Your task to perform on an android device: Open the calendar app, open the side menu, and click the "Day" option Image 0: 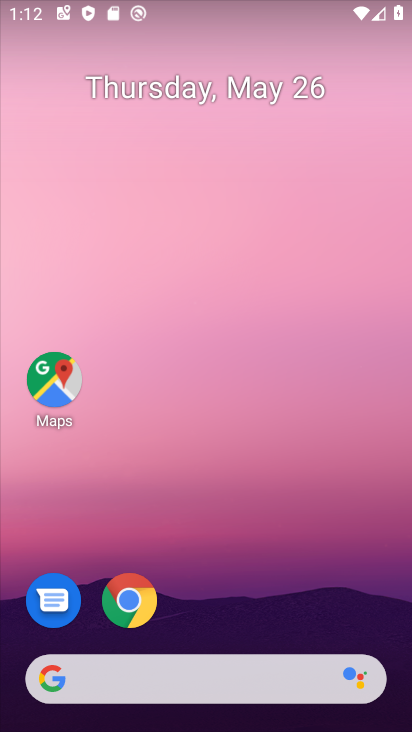
Step 0: drag from (313, 525) to (334, 69)
Your task to perform on an android device: Open the calendar app, open the side menu, and click the "Day" option Image 1: 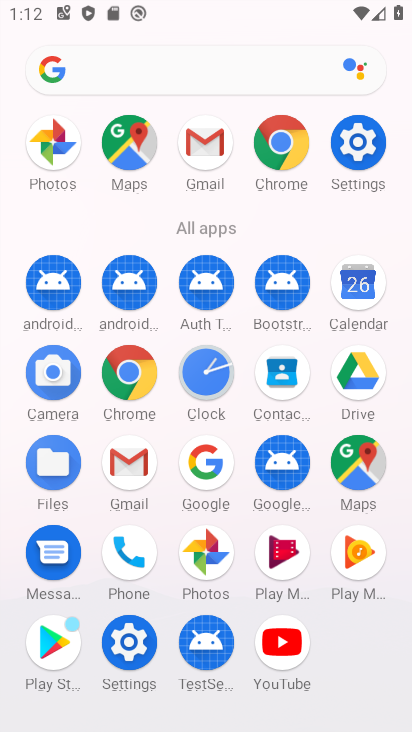
Step 1: click (375, 271)
Your task to perform on an android device: Open the calendar app, open the side menu, and click the "Day" option Image 2: 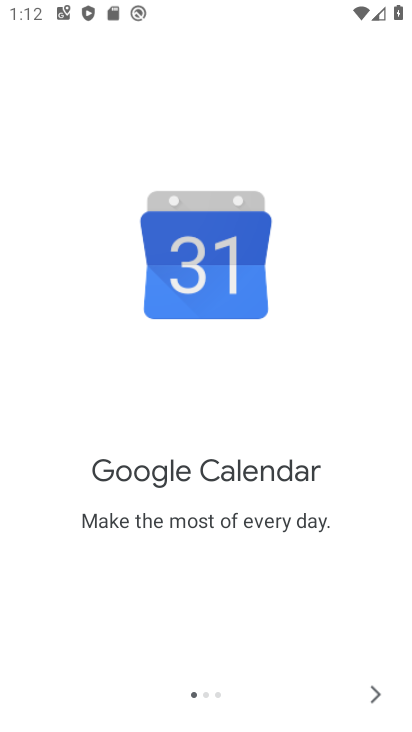
Step 2: click (380, 698)
Your task to perform on an android device: Open the calendar app, open the side menu, and click the "Day" option Image 3: 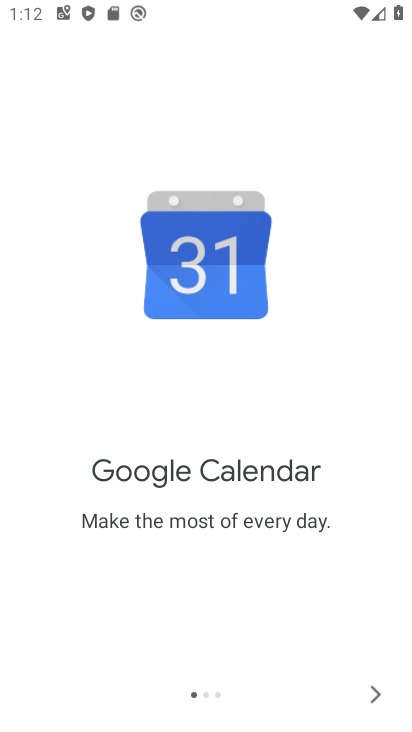
Step 3: click (380, 698)
Your task to perform on an android device: Open the calendar app, open the side menu, and click the "Day" option Image 4: 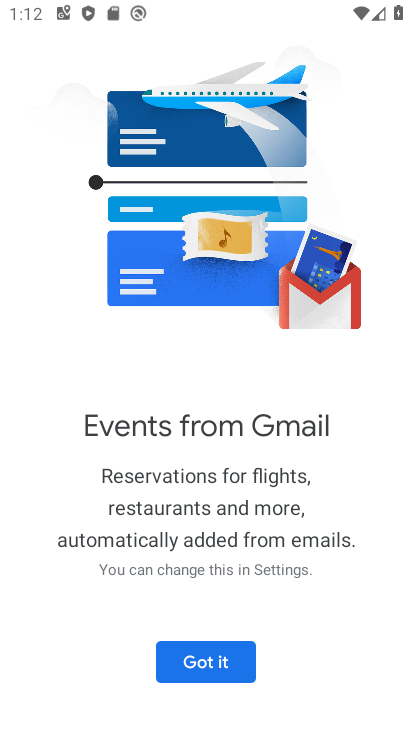
Step 4: click (233, 675)
Your task to perform on an android device: Open the calendar app, open the side menu, and click the "Day" option Image 5: 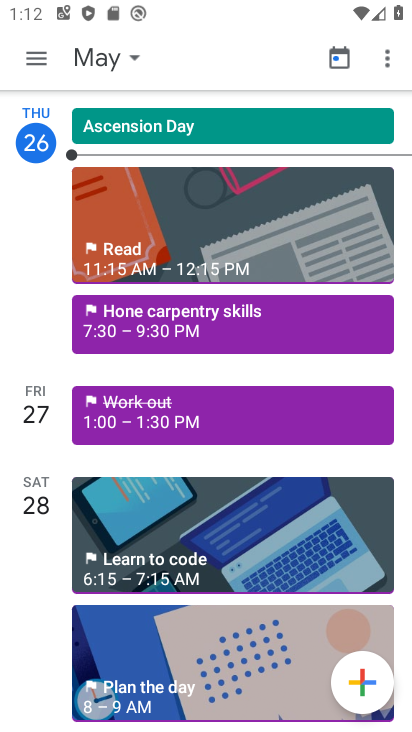
Step 5: click (22, 61)
Your task to perform on an android device: Open the calendar app, open the side menu, and click the "Day" option Image 6: 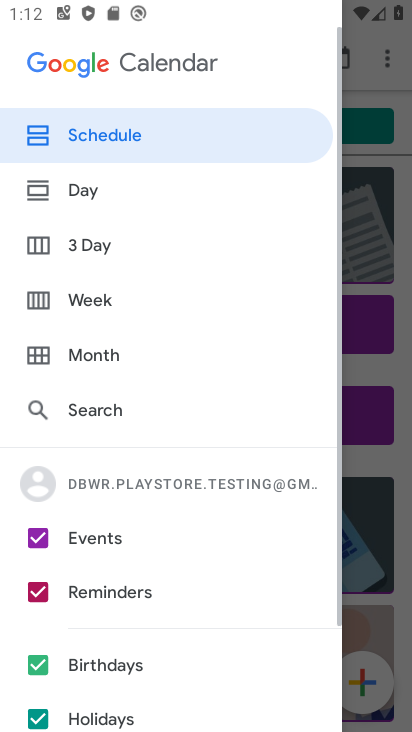
Step 6: click (70, 177)
Your task to perform on an android device: Open the calendar app, open the side menu, and click the "Day" option Image 7: 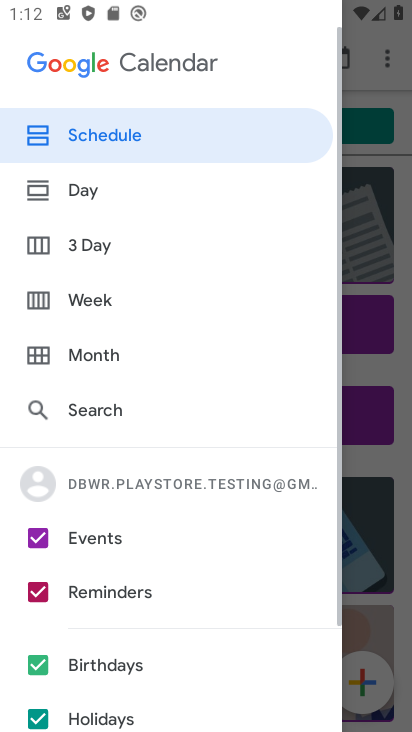
Step 7: click (74, 190)
Your task to perform on an android device: Open the calendar app, open the side menu, and click the "Day" option Image 8: 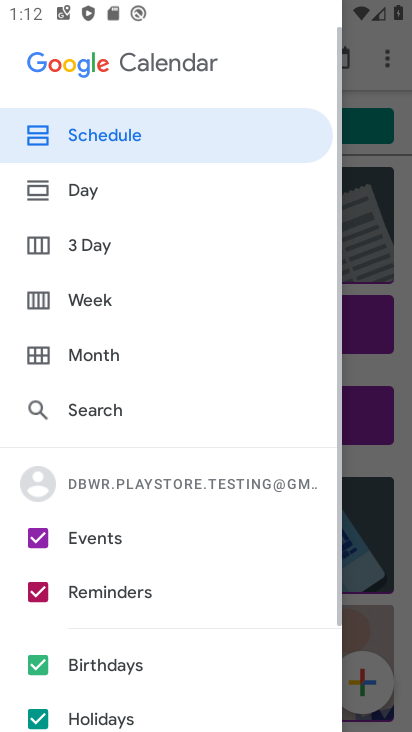
Step 8: click (74, 190)
Your task to perform on an android device: Open the calendar app, open the side menu, and click the "Day" option Image 9: 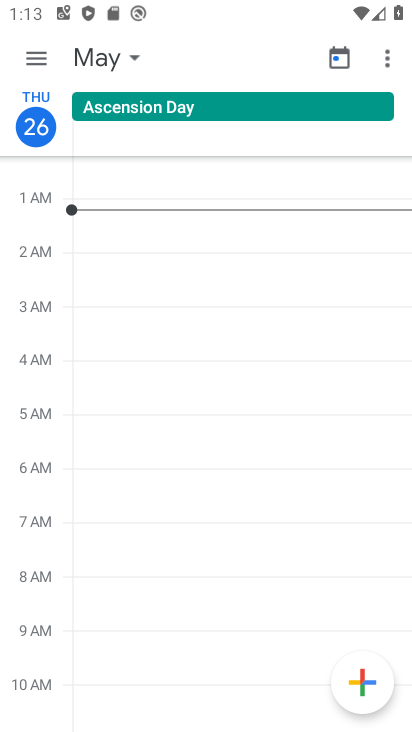
Step 9: task complete